Your task to perform on an android device: Open Wikipedia Image 0: 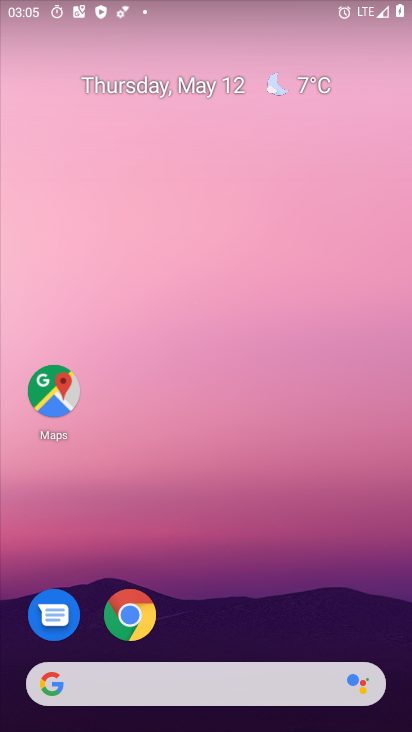
Step 0: click (116, 610)
Your task to perform on an android device: Open Wikipedia Image 1: 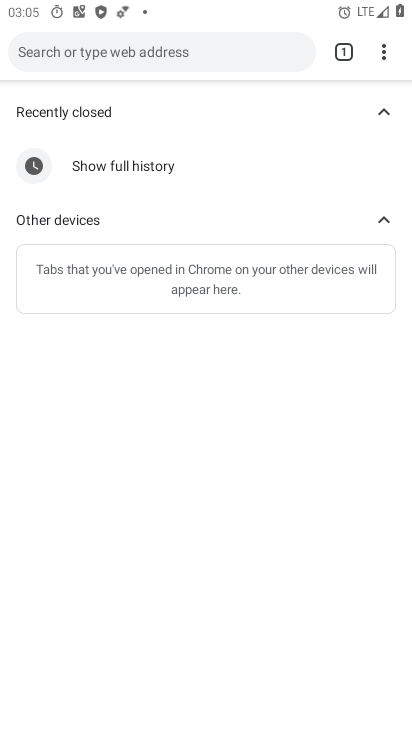
Step 1: press home button
Your task to perform on an android device: Open Wikipedia Image 2: 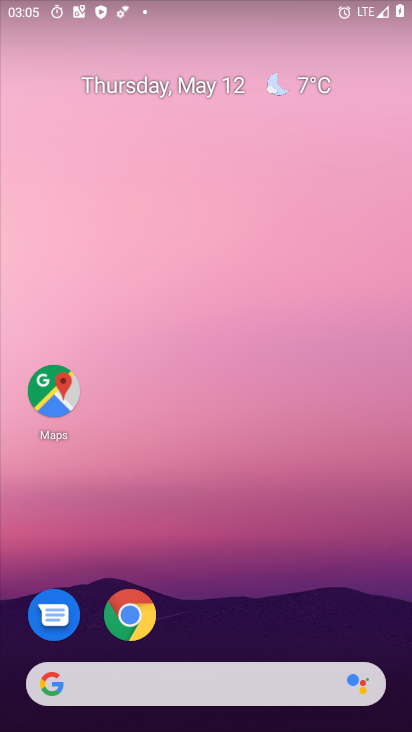
Step 2: click (130, 603)
Your task to perform on an android device: Open Wikipedia Image 3: 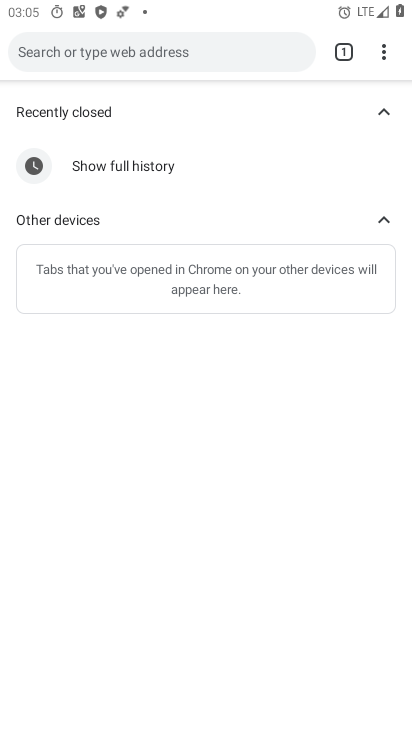
Step 3: click (246, 55)
Your task to perform on an android device: Open Wikipedia Image 4: 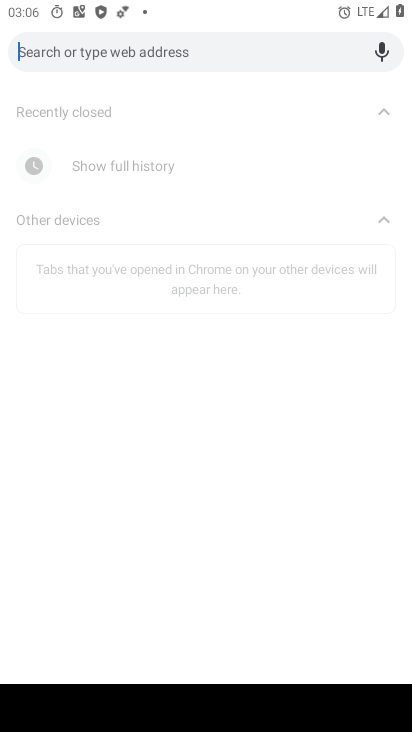
Step 4: type "wikipedia"
Your task to perform on an android device: Open Wikipedia Image 5: 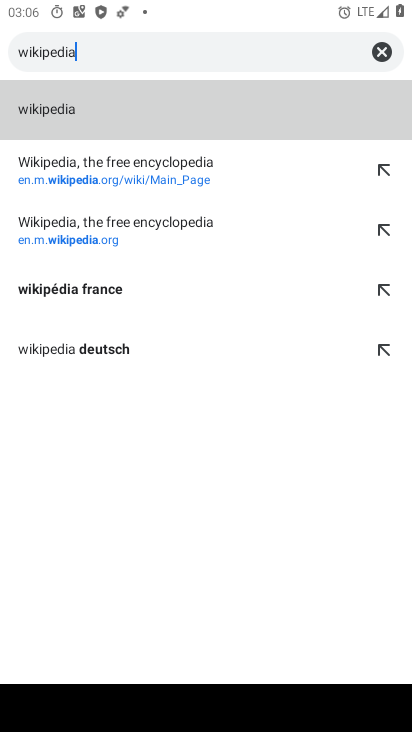
Step 5: click (114, 220)
Your task to perform on an android device: Open Wikipedia Image 6: 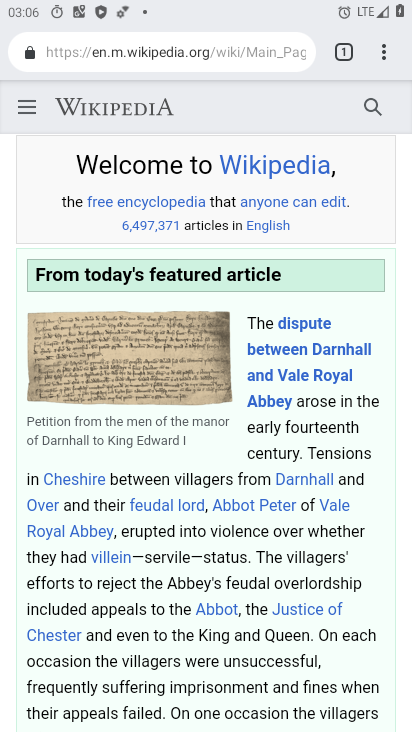
Step 6: task complete